Your task to perform on an android device: Search for vegetarian restaurants on Maps Image 0: 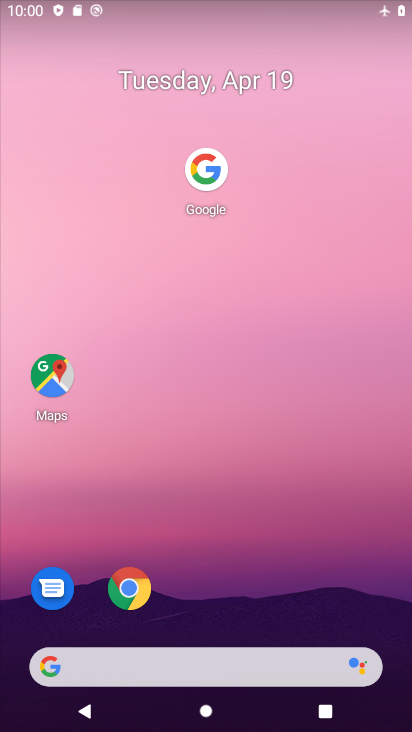
Step 0: click (44, 373)
Your task to perform on an android device: Search for vegetarian restaurants on Maps Image 1: 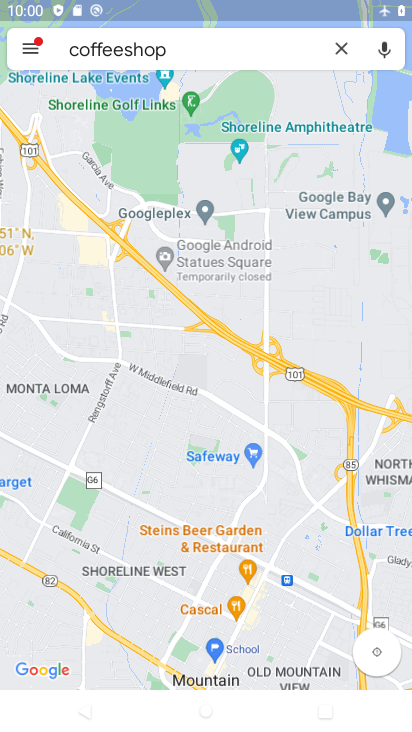
Step 1: click (340, 49)
Your task to perform on an android device: Search for vegetarian restaurants on Maps Image 2: 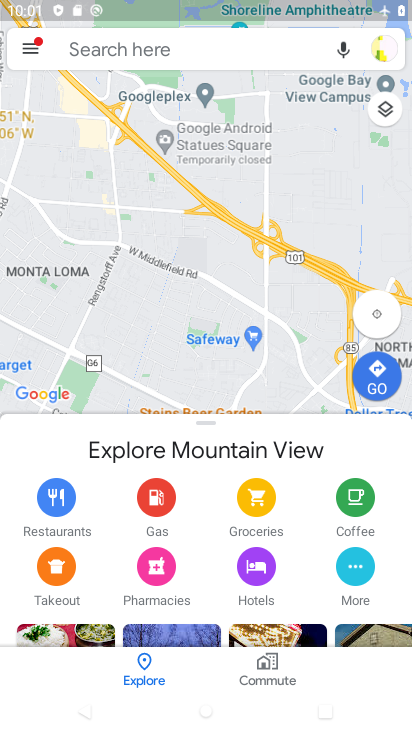
Step 2: click (144, 44)
Your task to perform on an android device: Search for vegetarian restaurants on Maps Image 3: 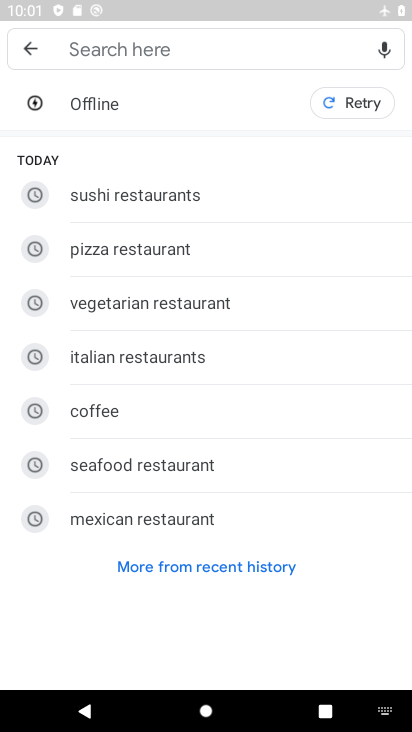
Step 3: click (172, 309)
Your task to perform on an android device: Search for vegetarian restaurants on Maps Image 4: 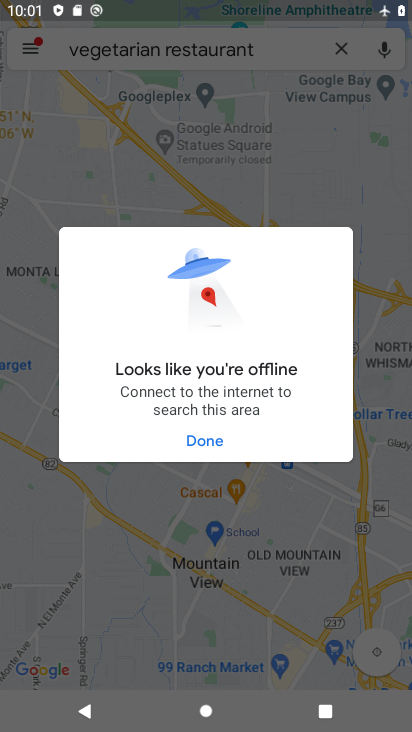
Step 4: click (191, 441)
Your task to perform on an android device: Search for vegetarian restaurants on Maps Image 5: 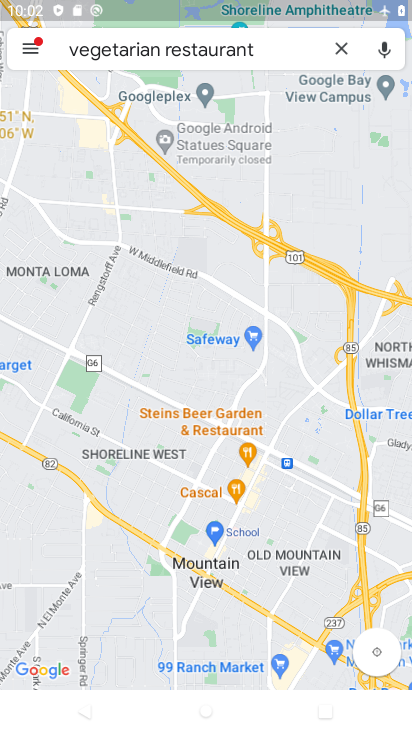
Step 5: click (283, 51)
Your task to perform on an android device: Search for vegetarian restaurants on Maps Image 6: 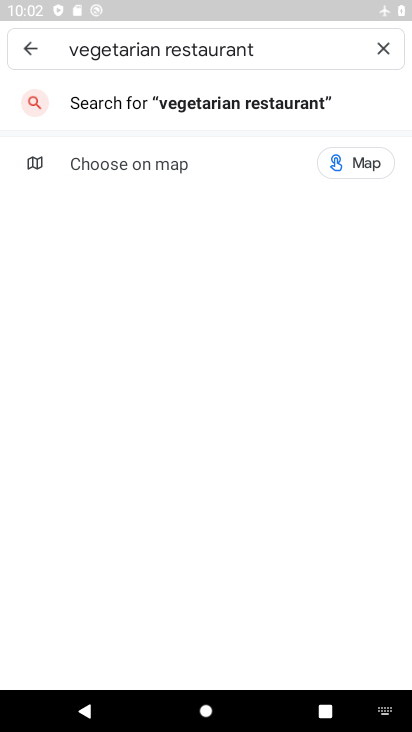
Step 6: click (295, 96)
Your task to perform on an android device: Search for vegetarian restaurants on Maps Image 7: 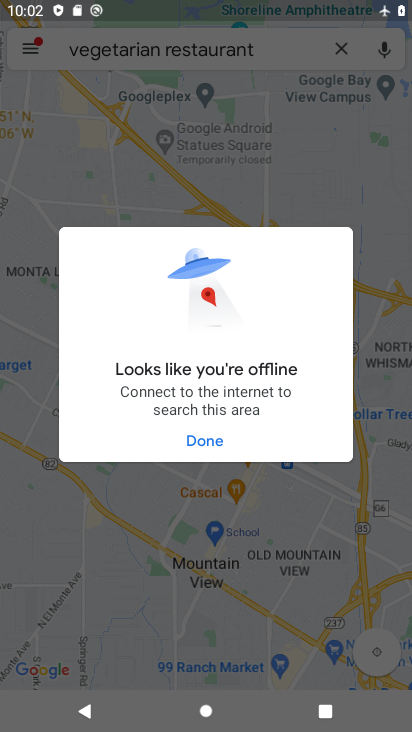
Step 7: task complete